Your task to perform on an android device: Search for "usb-b" on target.com, select the first entry, add it to the cart, then select checkout. Image 0: 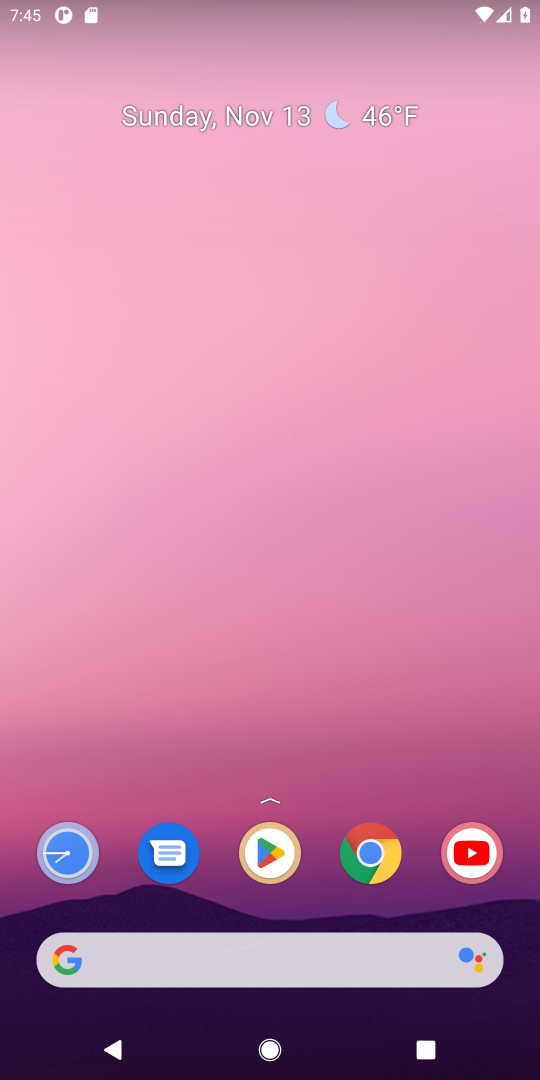
Step 0: press home button
Your task to perform on an android device: Search for "usb-b" on target.com, select the first entry, add it to the cart, then select checkout. Image 1: 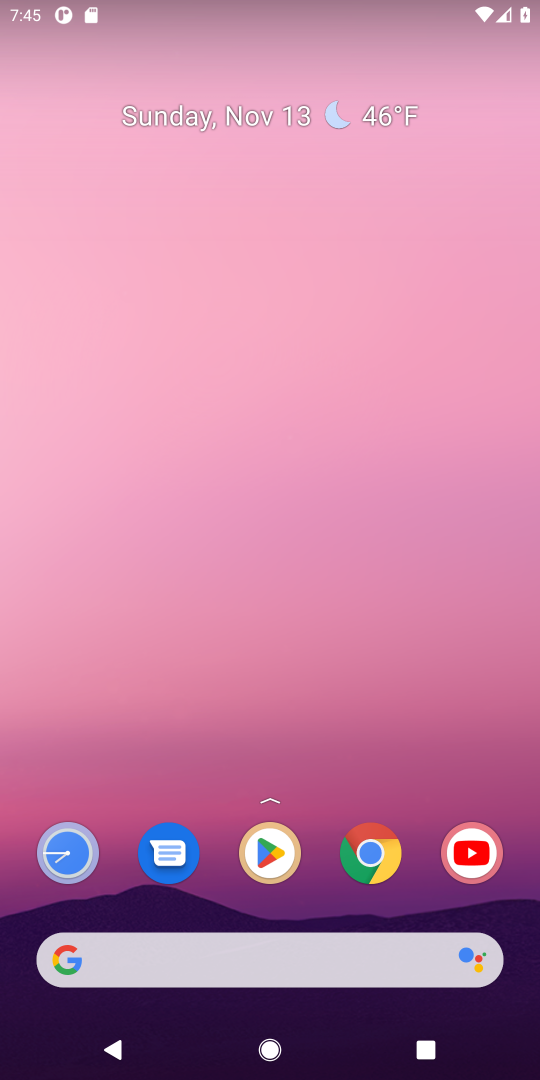
Step 1: click (102, 950)
Your task to perform on an android device: Search for "usb-b" on target.com, select the first entry, add it to the cart, then select checkout. Image 2: 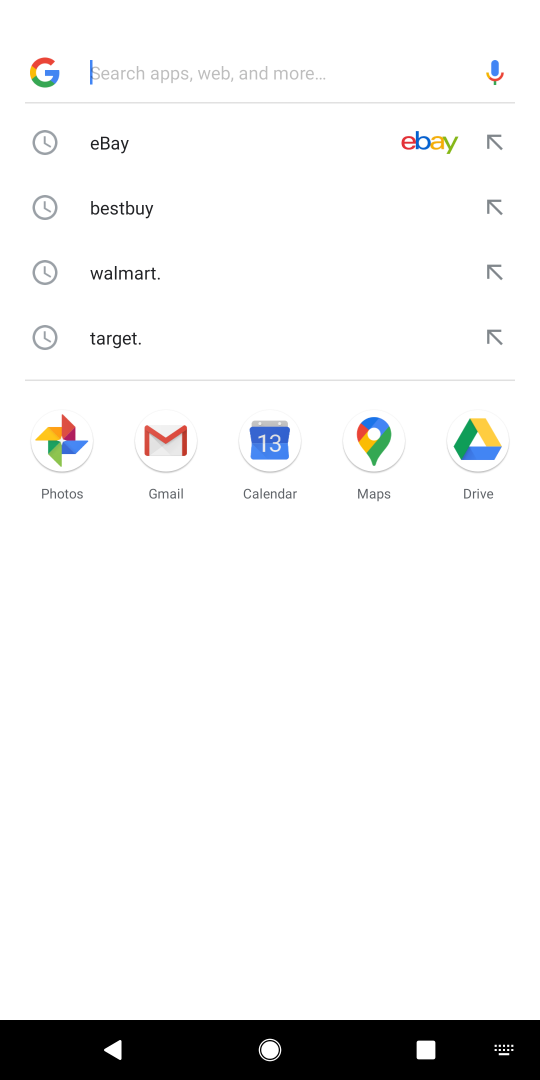
Step 2: type "target.com"
Your task to perform on an android device: Search for "usb-b" on target.com, select the first entry, add it to the cart, then select checkout. Image 3: 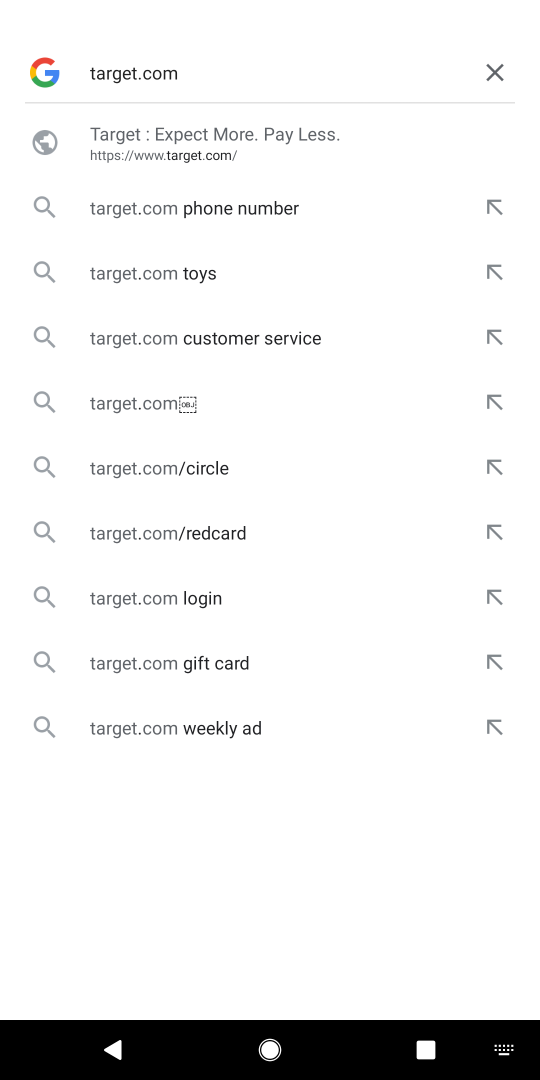
Step 3: press enter
Your task to perform on an android device: Search for "usb-b" on target.com, select the first entry, add it to the cart, then select checkout. Image 4: 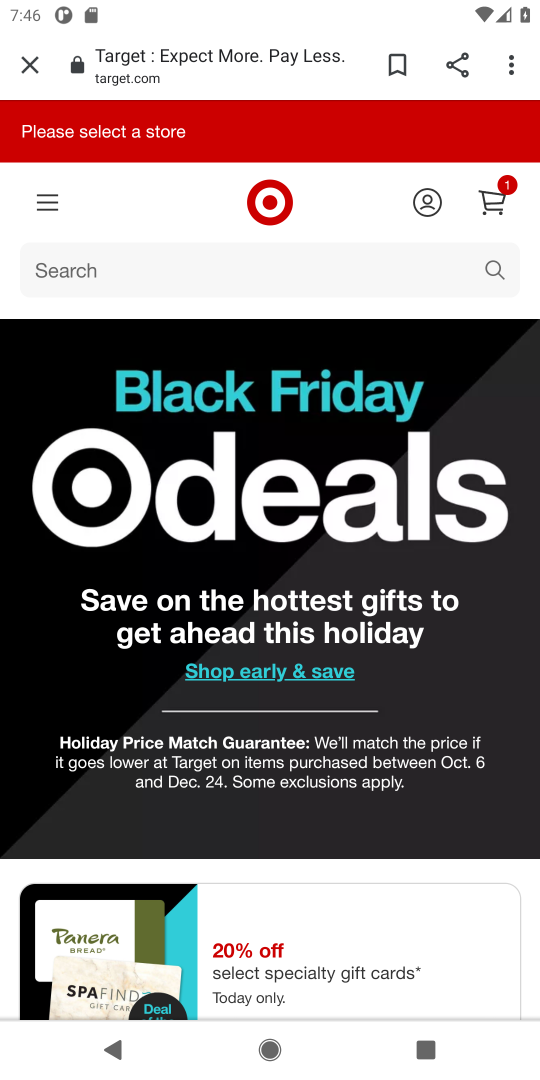
Step 4: click (88, 275)
Your task to perform on an android device: Search for "usb-b" on target.com, select the first entry, add it to the cart, then select checkout. Image 5: 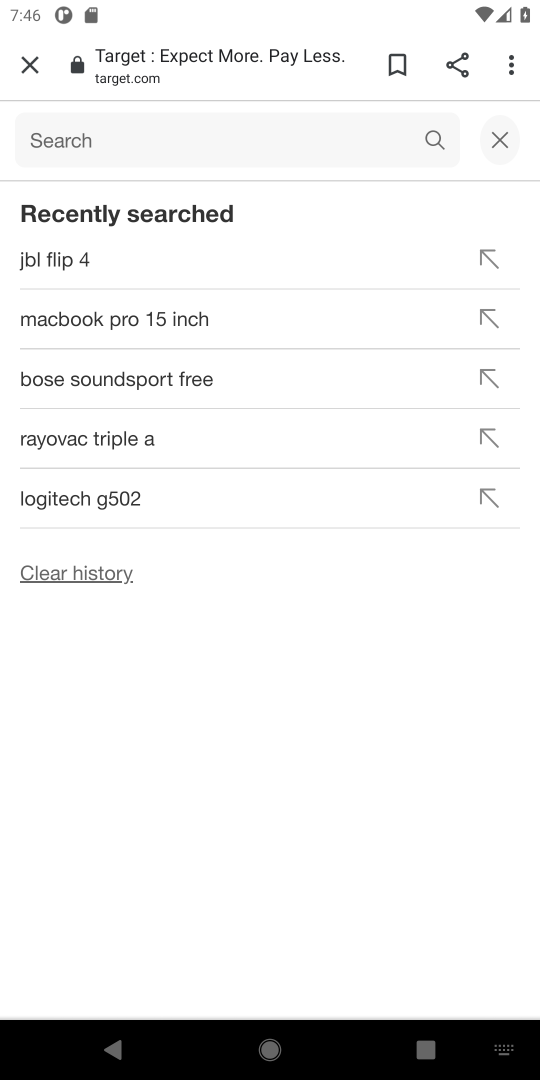
Step 5: type "usb b"
Your task to perform on an android device: Search for "usb-b" on target.com, select the first entry, add it to the cart, then select checkout. Image 6: 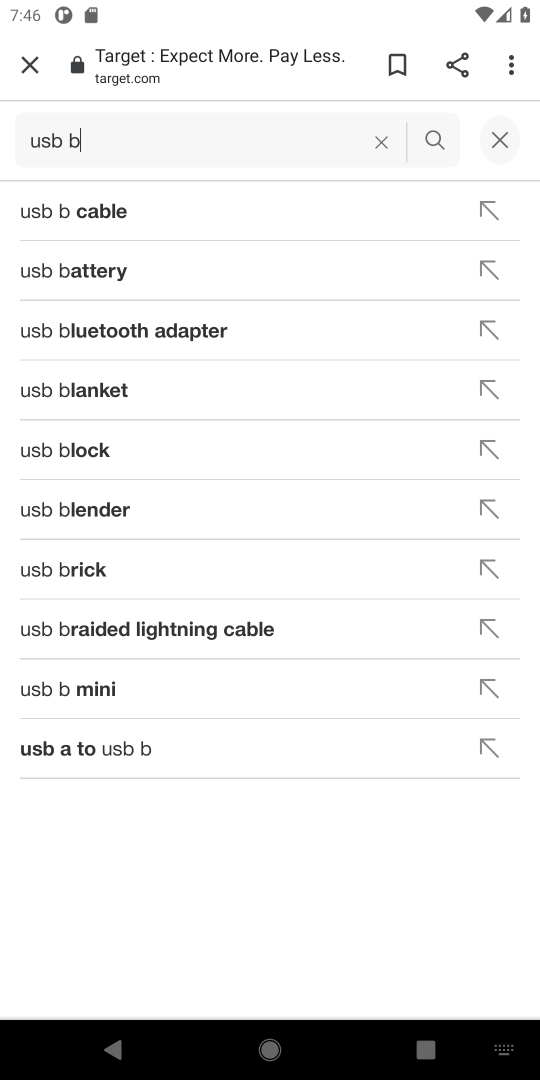
Step 6: press enter
Your task to perform on an android device: Search for "usb-b" on target.com, select the first entry, add it to the cart, then select checkout. Image 7: 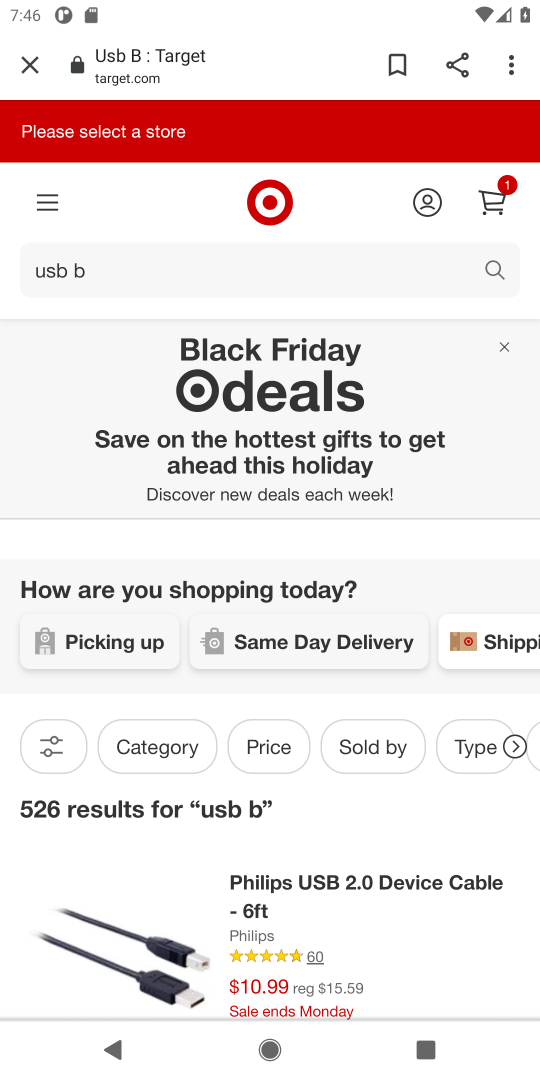
Step 7: drag from (311, 862) to (331, 393)
Your task to perform on an android device: Search for "usb-b" on target.com, select the first entry, add it to the cart, then select checkout. Image 8: 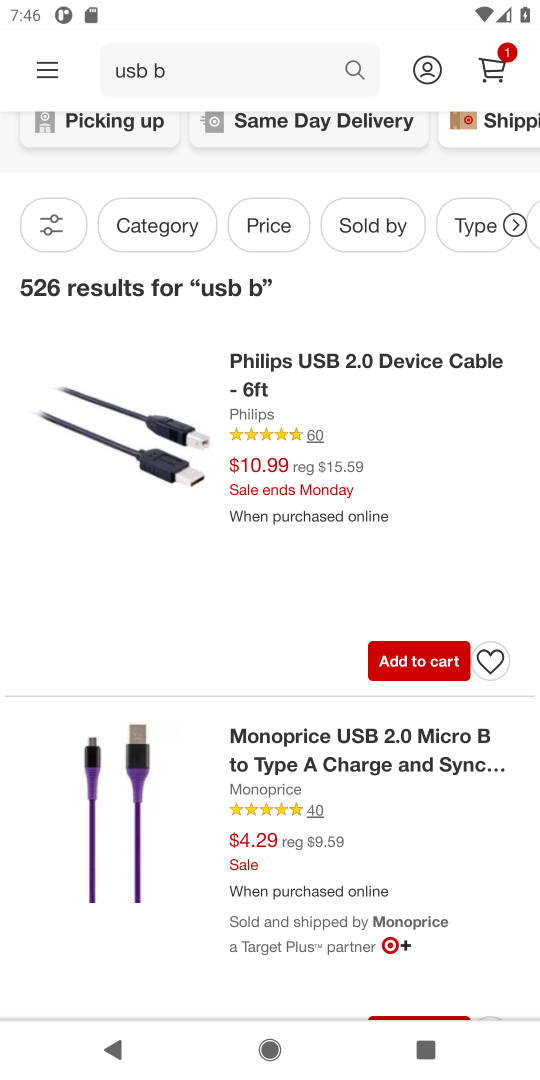
Step 8: drag from (352, 896) to (341, 521)
Your task to perform on an android device: Search for "usb-b" on target.com, select the first entry, add it to the cart, then select checkout. Image 9: 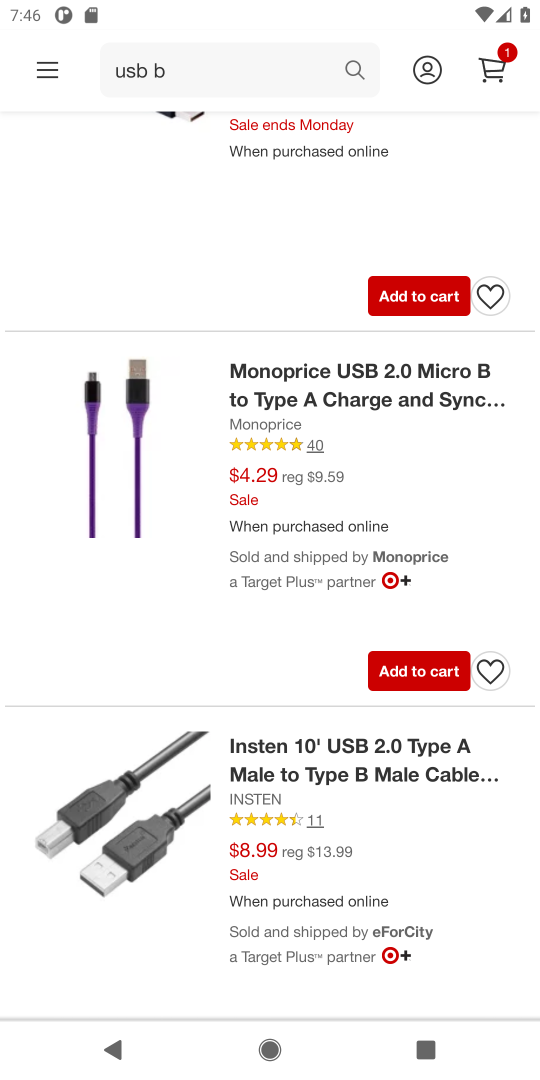
Step 9: drag from (309, 941) to (313, 714)
Your task to perform on an android device: Search for "usb-b" on target.com, select the first entry, add it to the cart, then select checkout. Image 10: 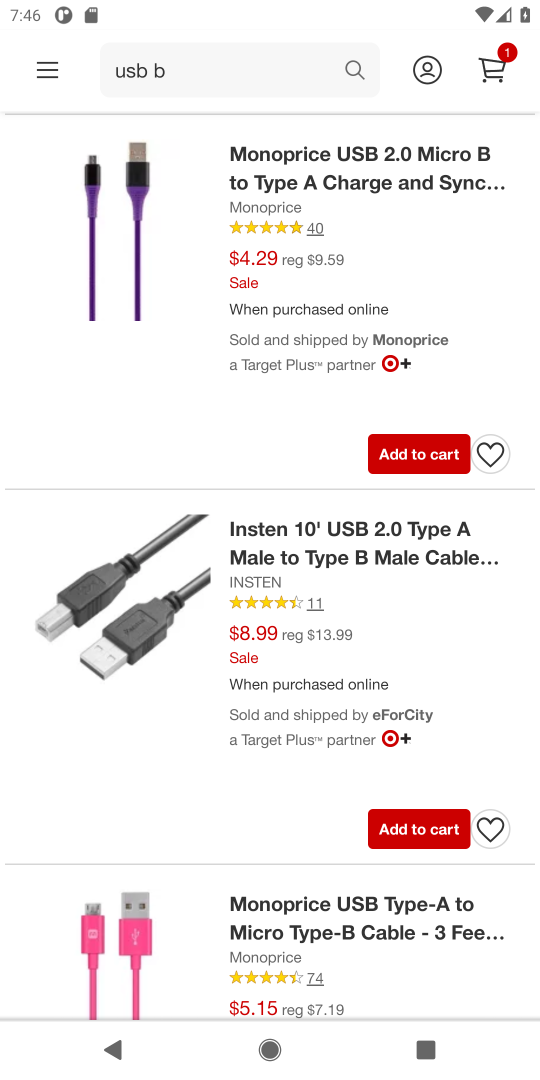
Step 10: drag from (299, 954) to (297, 616)
Your task to perform on an android device: Search for "usb-b" on target.com, select the first entry, add it to the cart, then select checkout. Image 11: 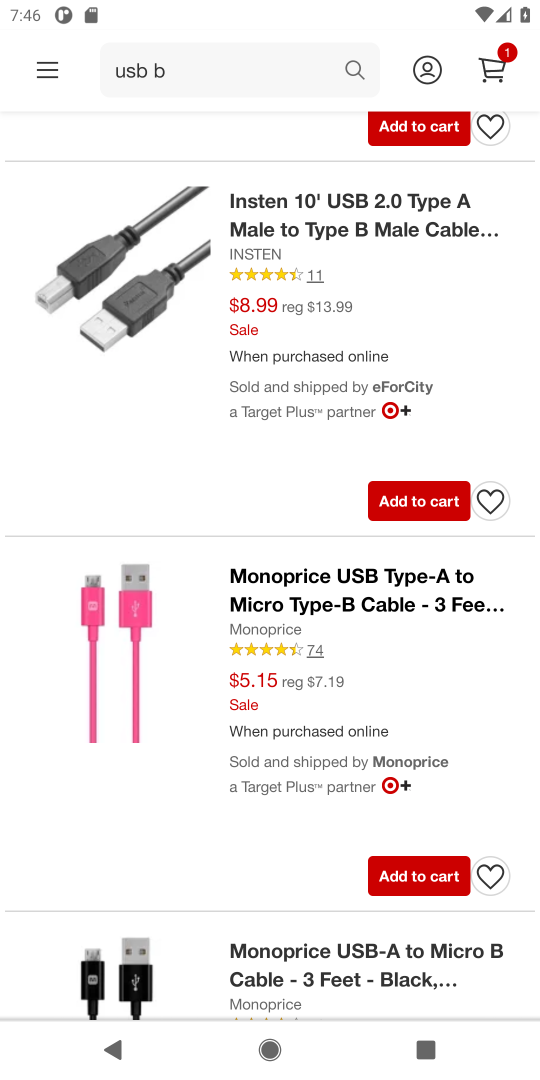
Step 11: drag from (255, 910) to (276, 680)
Your task to perform on an android device: Search for "usb-b" on target.com, select the first entry, add it to the cart, then select checkout. Image 12: 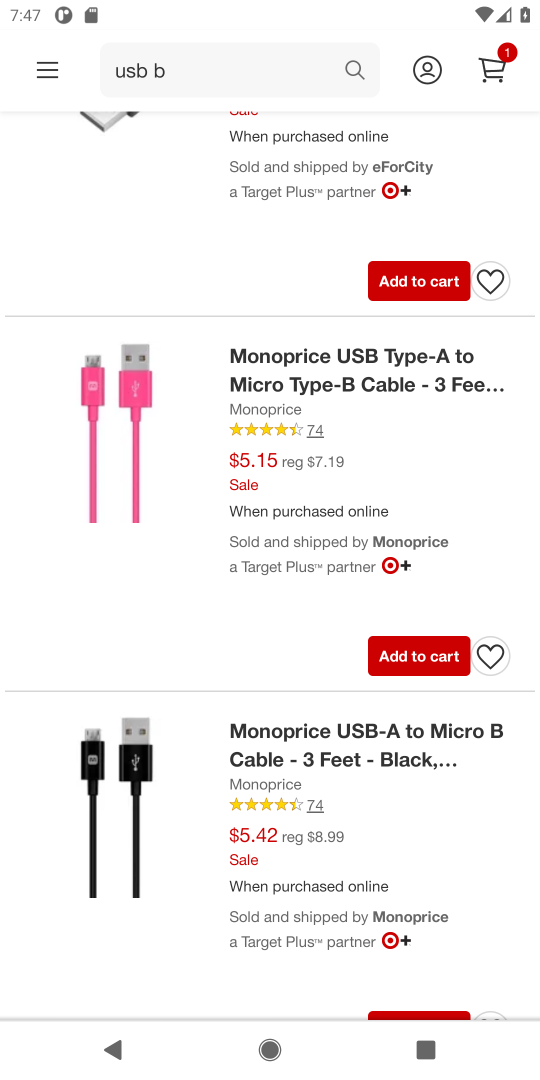
Step 12: drag from (278, 831) to (310, 482)
Your task to perform on an android device: Search for "usb-b" on target.com, select the first entry, add it to the cart, then select checkout. Image 13: 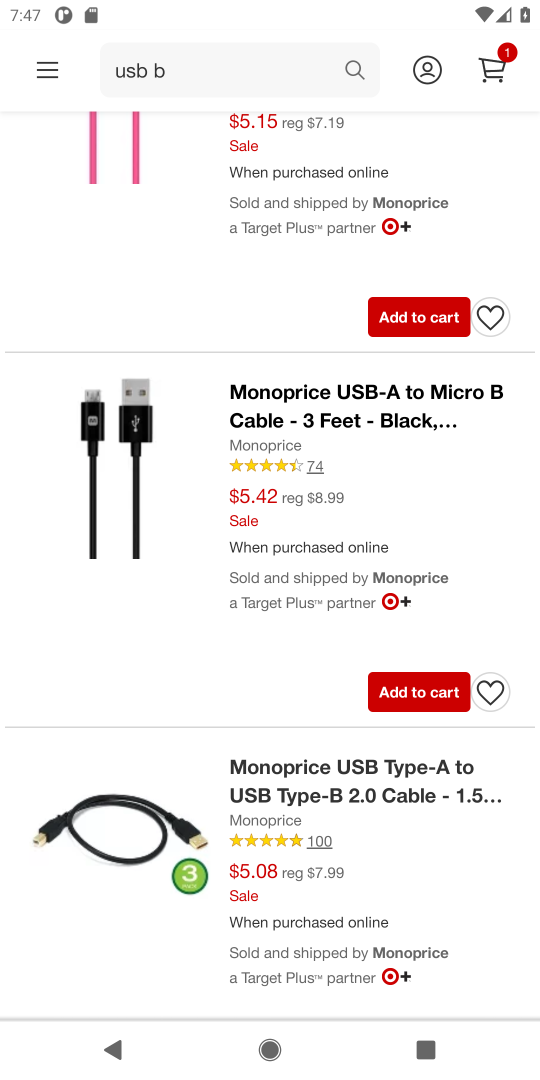
Step 13: drag from (309, 879) to (321, 439)
Your task to perform on an android device: Search for "usb-b" on target.com, select the first entry, add it to the cart, then select checkout. Image 14: 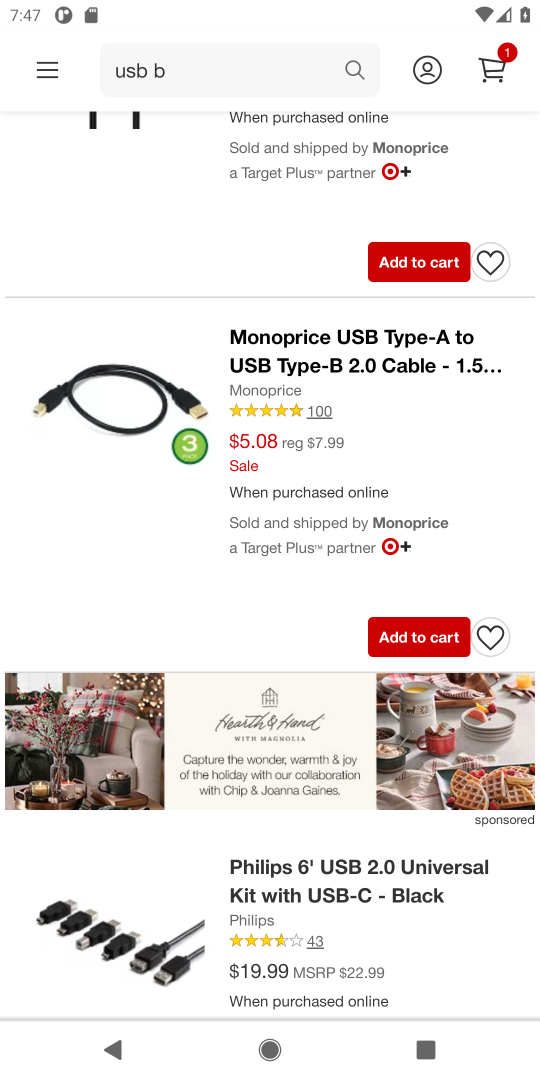
Step 14: drag from (303, 975) to (300, 590)
Your task to perform on an android device: Search for "usb-b" on target.com, select the first entry, add it to the cart, then select checkout. Image 15: 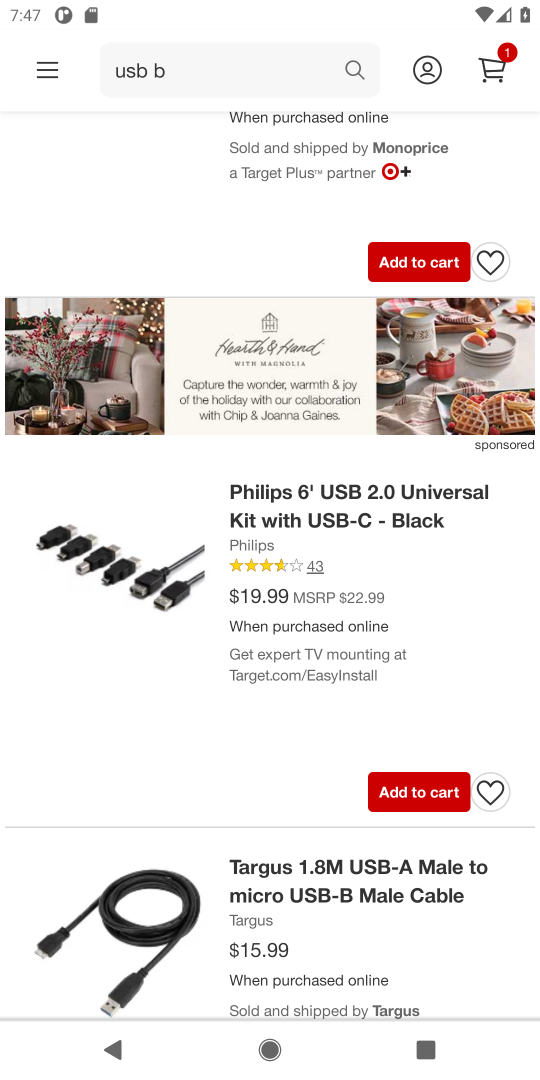
Step 15: drag from (273, 892) to (306, 511)
Your task to perform on an android device: Search for "usb-b" on target.com, select the first entry, add it to the cart, then select checkout. Image 16: 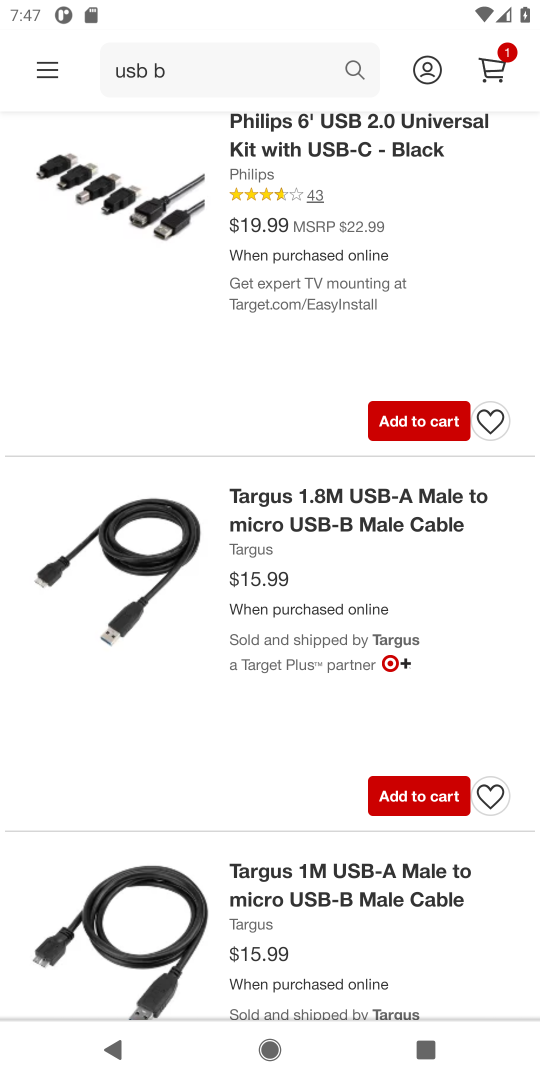
Step 16: drag from (295, 339) to (293, 735)
Your task to perform on an android device: Search for "usb-b" on target.com, select the first entry, add it to the cart, then select checkout. Image 17: 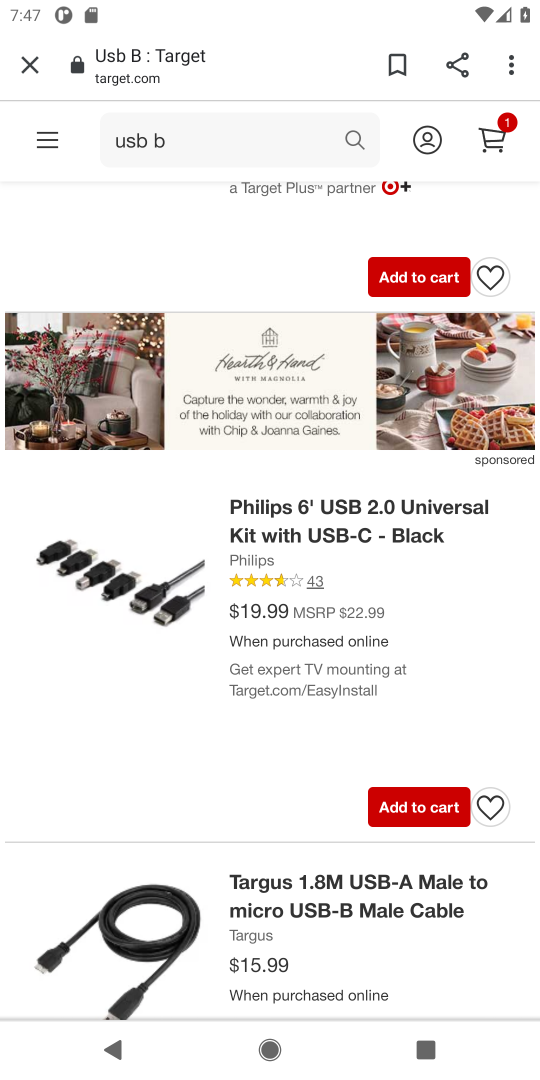
Step 17: drag from (311, 260) to (303, 767)
Your task to perform on an android device: Search for "usb-b" on target.com, select the first entry, add it to the cart, then select checkout. Image 18: 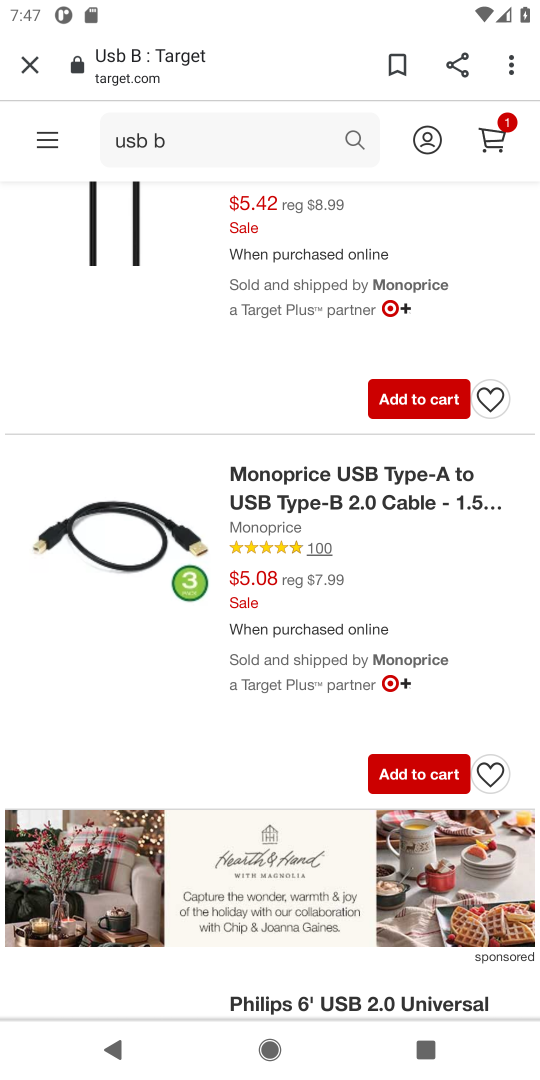
Step 18: drag from (273, 284) to (266, 676)
Your task to perform on an android device: Search for "usb-b" on target.com, select the first entry, add it to the cart, then select checkout. Image 19: 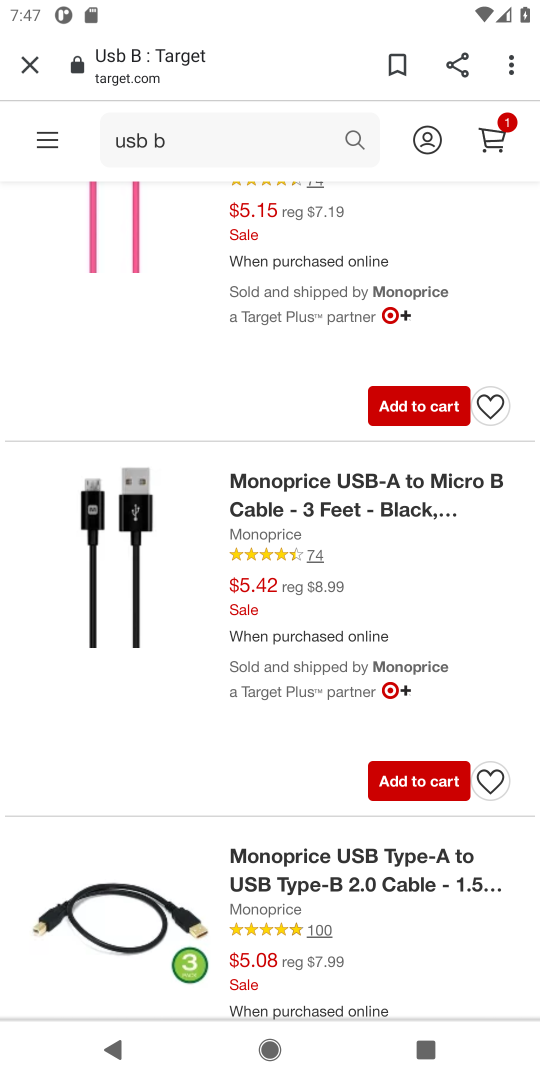
Step 19: click (407, 772)
Your task to perform on an android device: Search for "usb-b" on target.com, select the first entry, add it to the cart, then select checkout. Image 20: 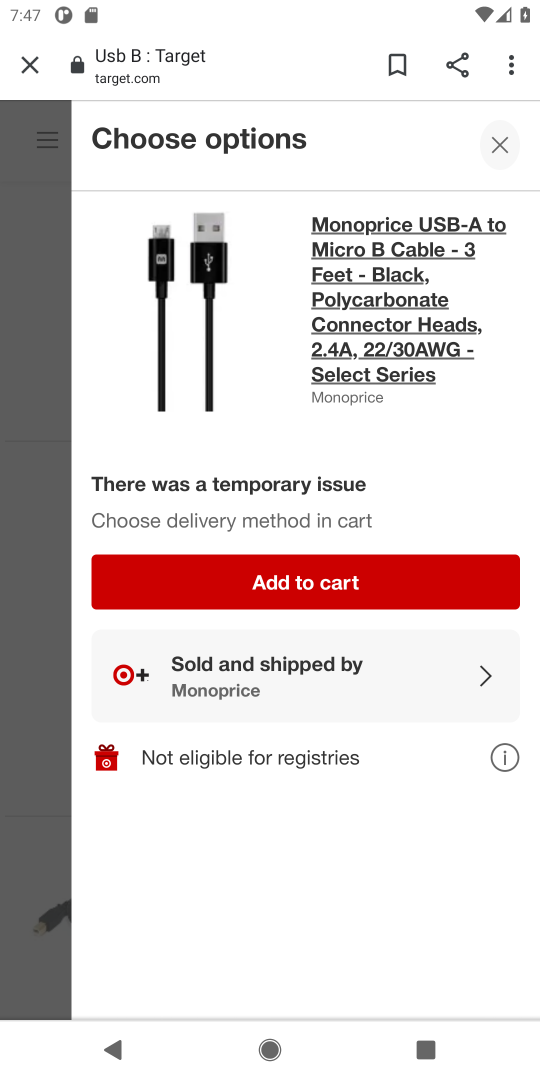
Step 20: click (356, 593)
Your task to perform on an android device: Search for "usb-b" on target.com, select the first entry, add it to the cart, then select checkout. Image 21: 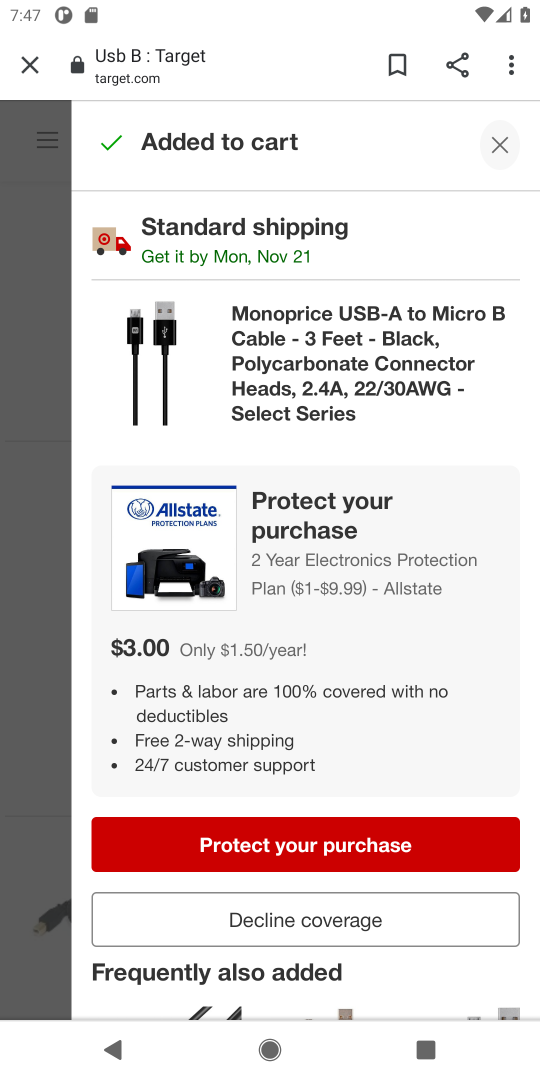
Step 21: click (387, 856)
Your task to perform on an android device: Search for "usb-b" on target.com, select the first entry, add it to the cart, then select checkout. Image 22: 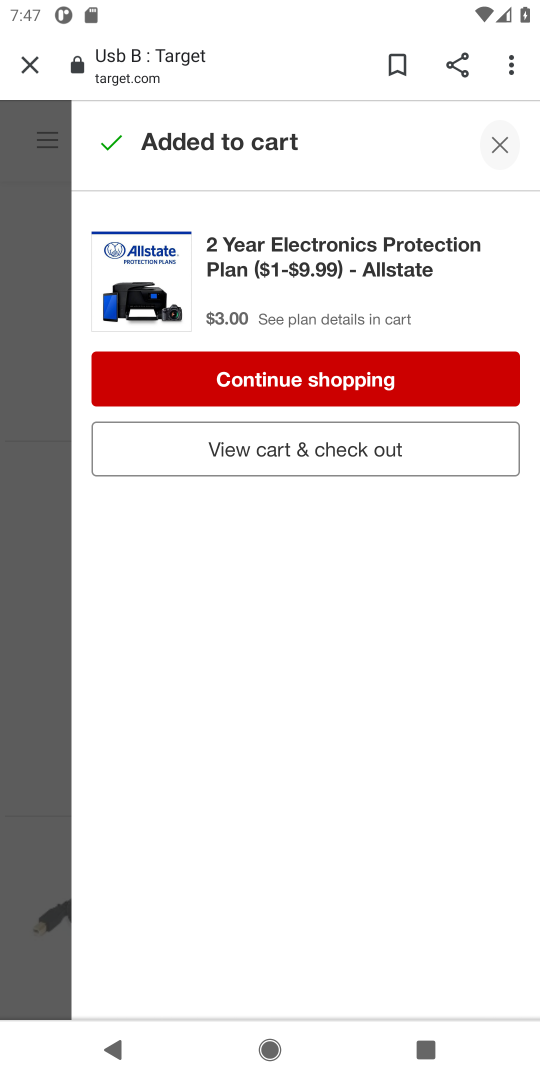
Step 22: click (374, 445)
Your task to perform on an android device: Search for "usb-b" on target.com, select the first entry, add it to the cart, then select checkout. Image 23: 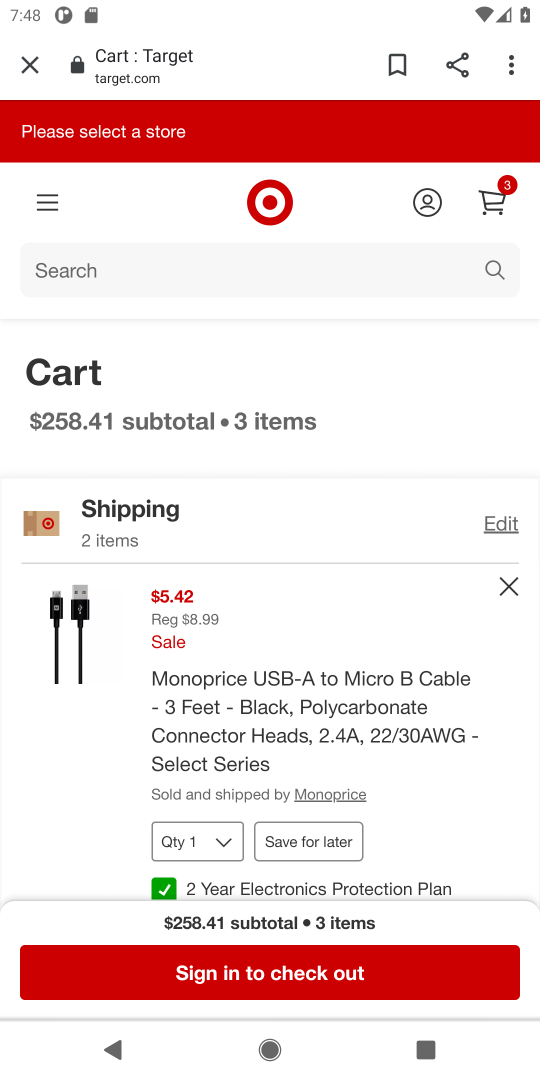
Step 23: task complete